Your task to perform on an android device: Open internet settings Image 0: 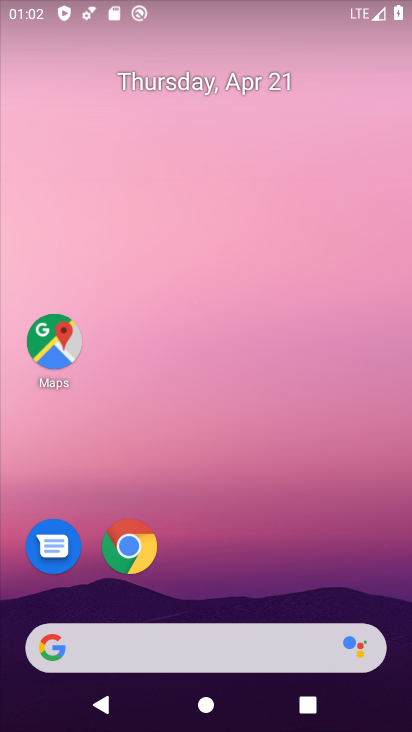
Step 0: drag from (292, 532) to (292, 111)
Your task to perform on an android device: Open internet settings Image 1: 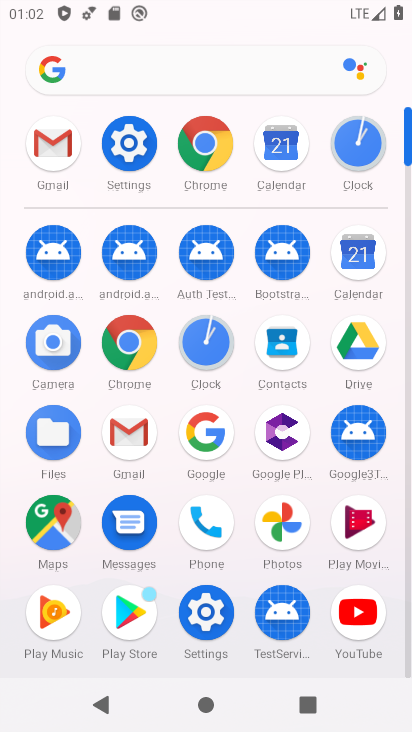
Step 1: click (138, 151)
Your task to perform on an android device: Open internet settings Image 2: 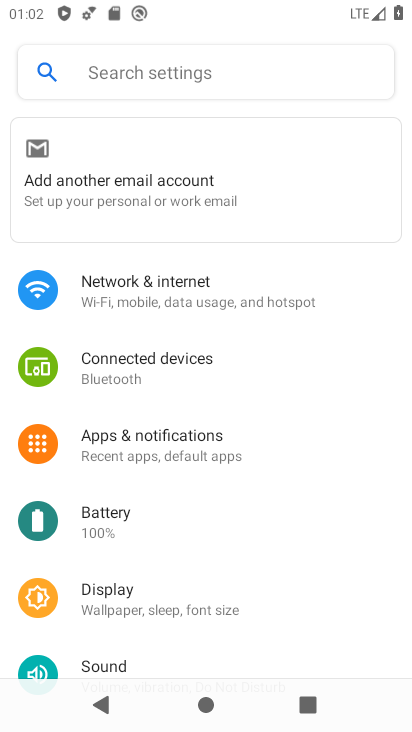
Step 2: click (178, 86)
Your task to perform on an android device: Open internet settings Image 3: 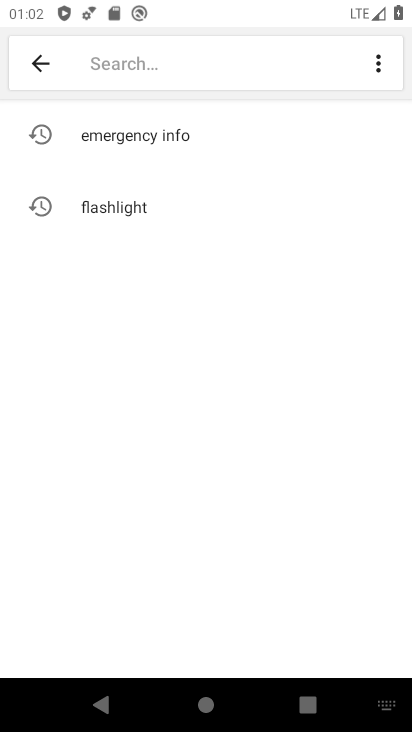
Step 3: click (48, 67)
Your task to perform on an android device: Open internet settings Image 4: 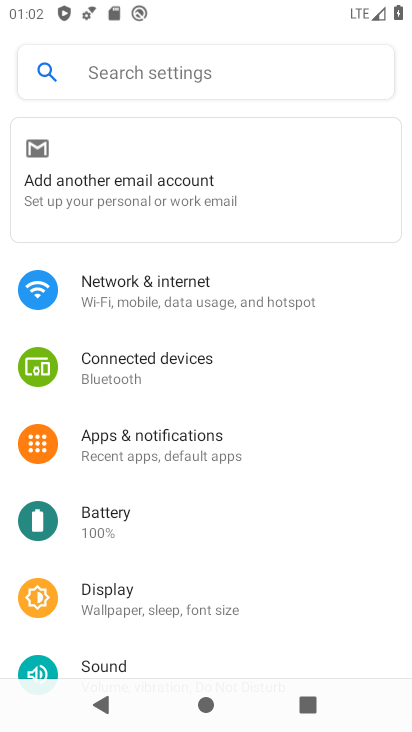
Step 4: click (195, 298)
Your task to perform on an android device: Open internet settings Image 5: 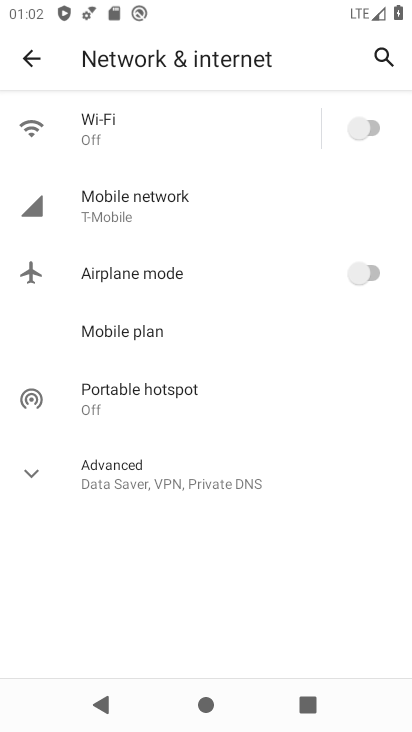
Step 5: task complete